Your task to perform on an android device: Open sound settings Image 0: 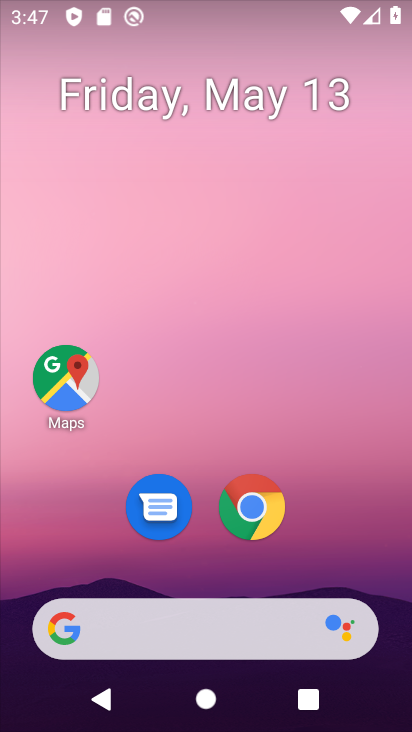
Step 0: drag from (327, 525) to (326, 86)
Your task to perform on an android device: Open sound settings Image 1: 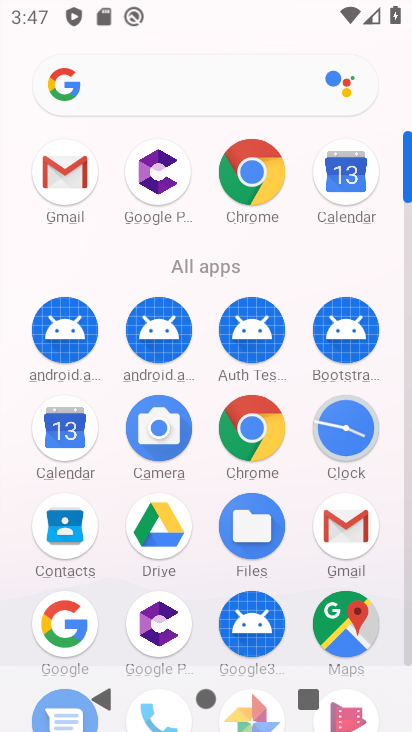
Step 1: drag from (280, 576) to (298, 141)
Your task to perform on an android device: Open sound settings Image 2: 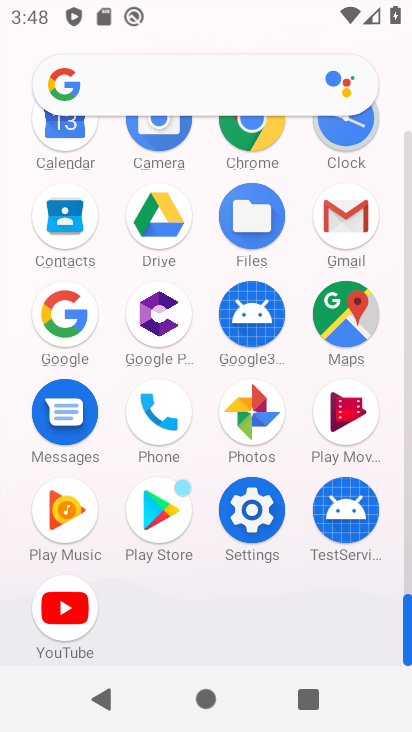
Step 2: click (270, 527)
Your task to perform on an android device: Open sound settings Image 3: 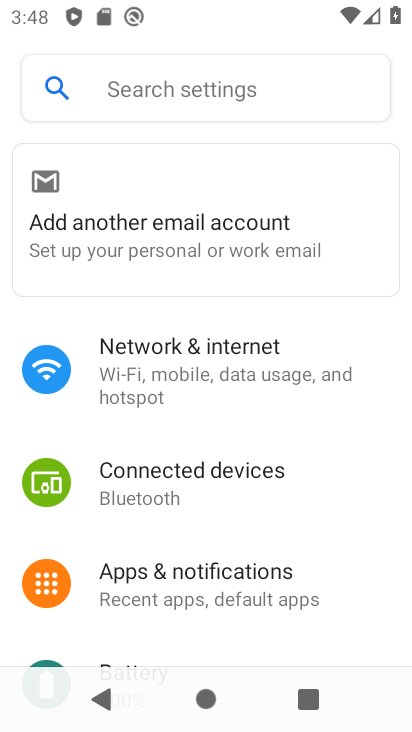
Step 3: drag from (286, 602) to (320, 154)
Your task to perform on an android device: Open sound settings Image 4: 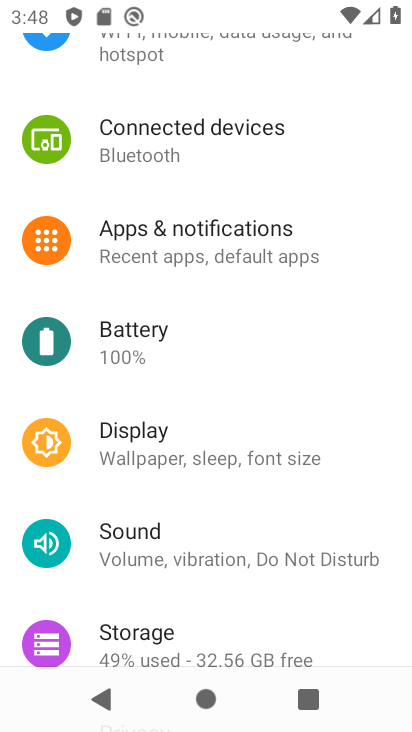
Step 4: click (216, 550)
Your task to perform on an android device: Open sound settings Image 5: 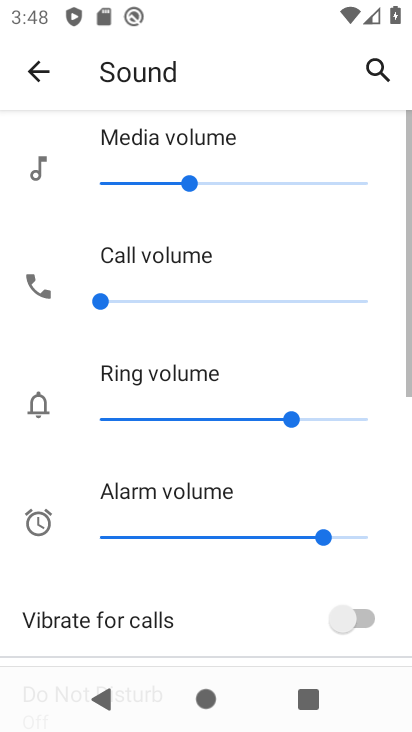
Step 5: task complete